Your task to perform on an android device: Go to accessibility settings Image 0: 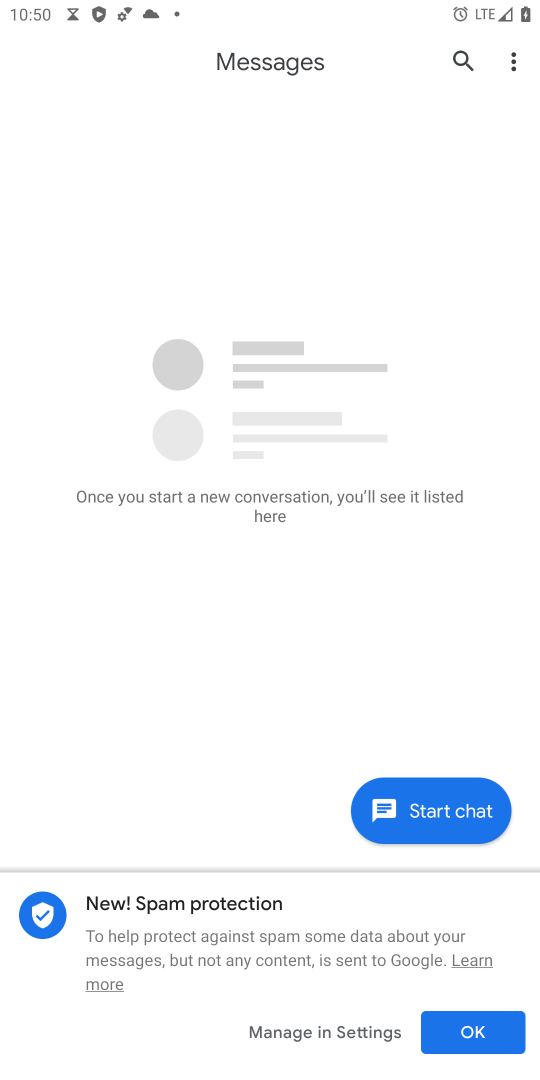
Step 0: press home button
Your task to perform on an android device: Go to accessibility settings Image 1: 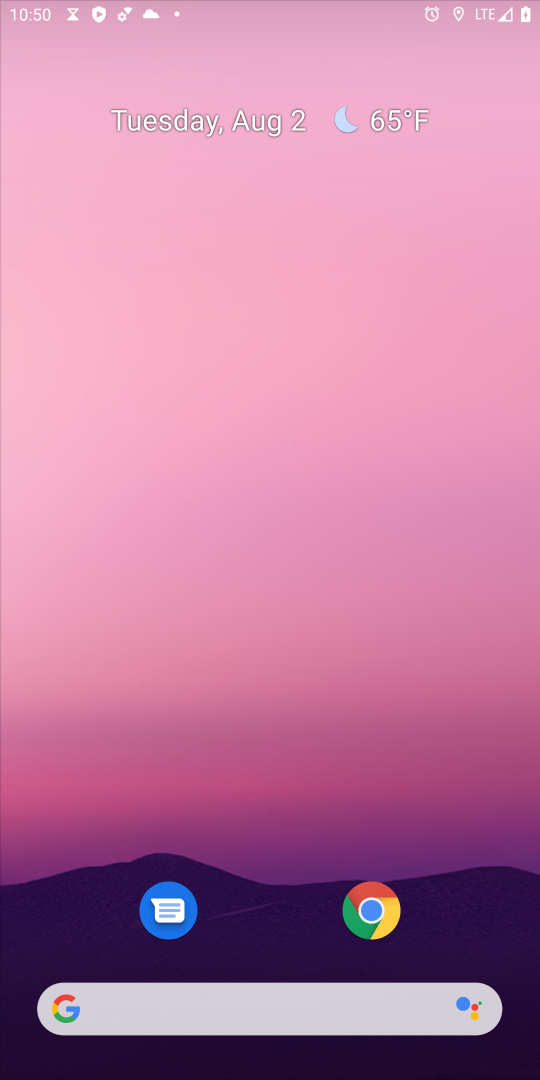
Step 1: drag from (304, 854) to (321, 276)
Your task to perform on an android device: Go to accessibility settings Image 2: 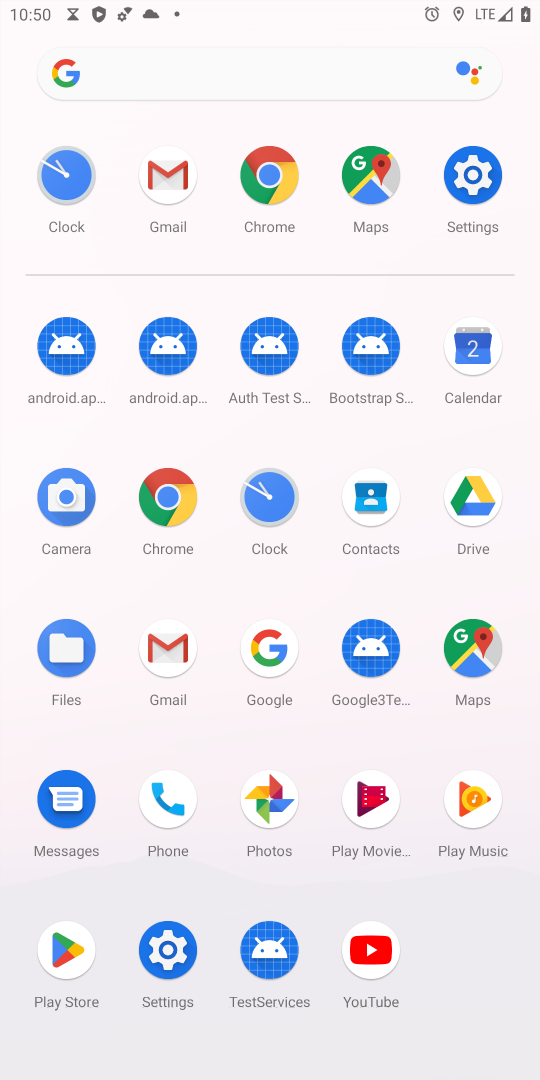
Step 2: click (452, 176)
Your task to perform on an android device: Go to accessibility settings Image 3: 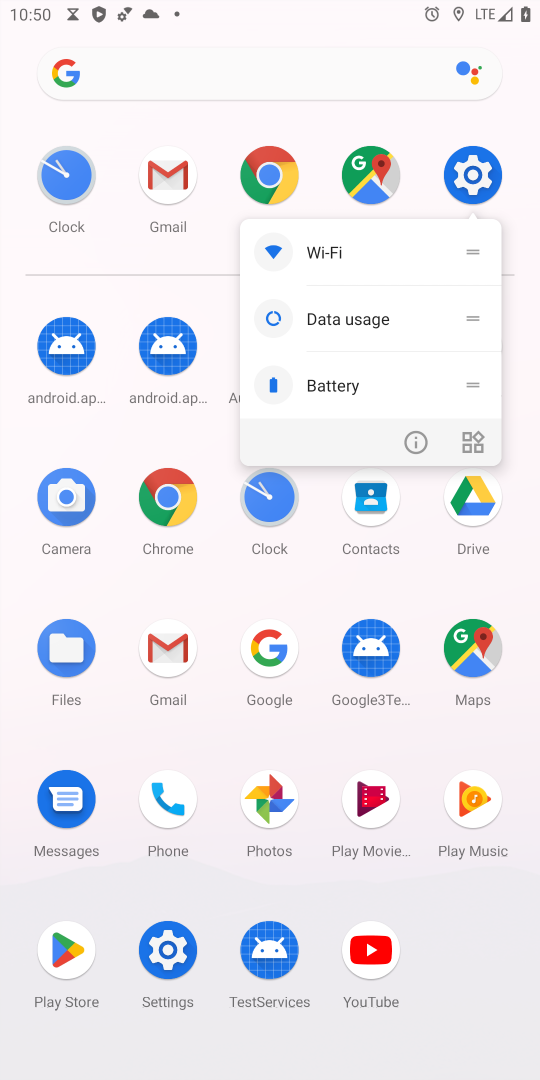
Step 3: click (474, 161)
Your task to perform on an android device: Go to accessibility settings Image 4: 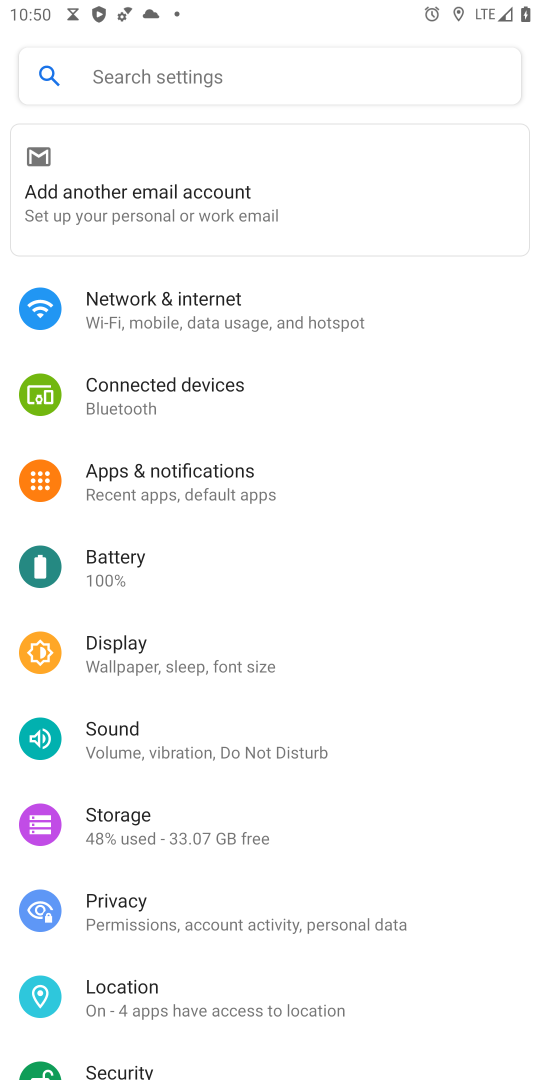
Step 4: drag from (198, 908) to (315, 240)
Your task to perform on an android device: Go to accessibility settings Image 5: 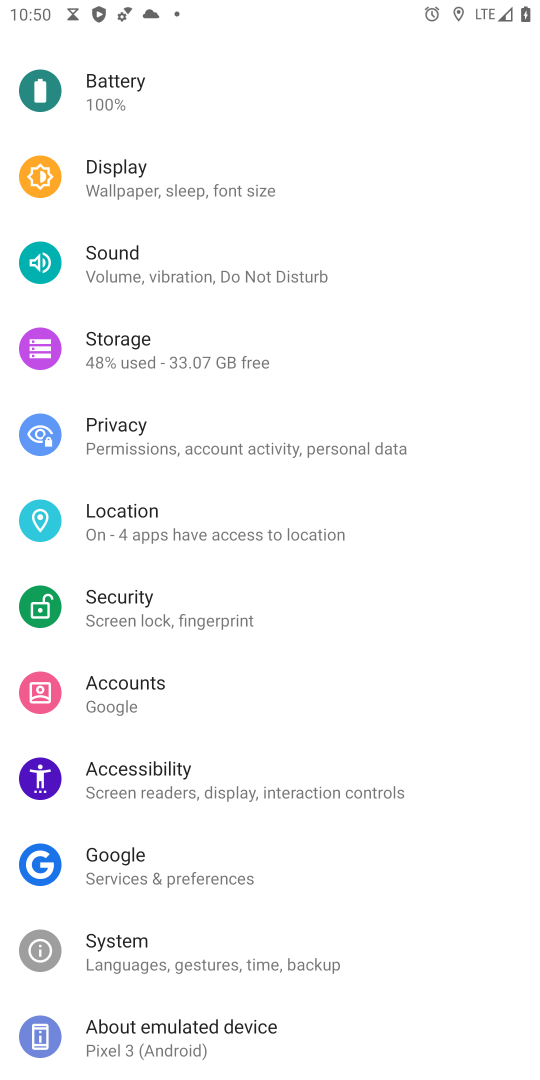
Step 5: click (194, 780)
Your task to perform on an android device: Go to accessibility settings Image 6: 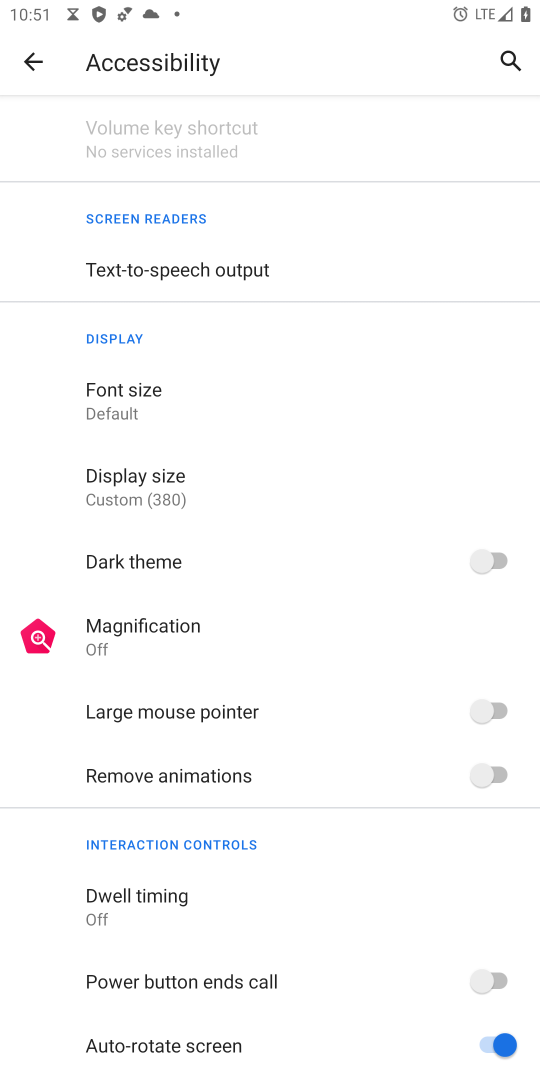
Step 6: task complete